Your task to perform on an android device: Open accessibility settings Image 0: 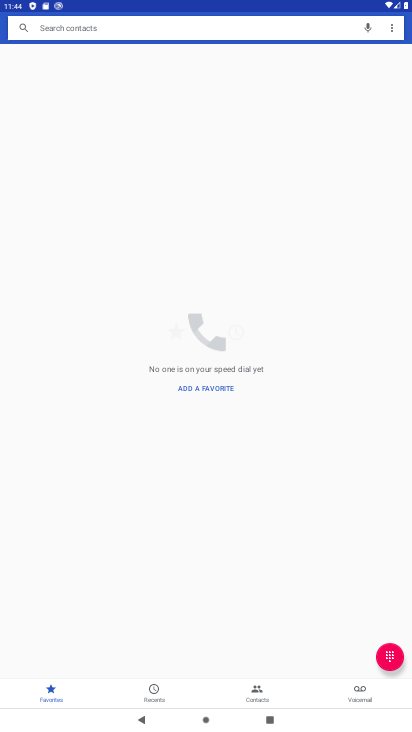
Step 0: press home button
Your task to perform on an android device: Open accessibility settings Image 1: 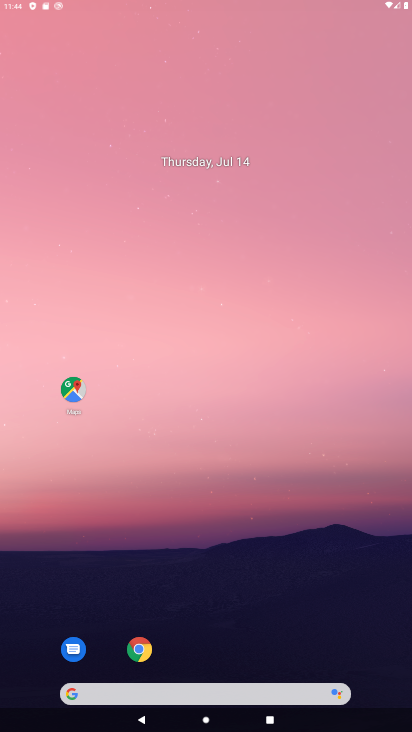
Step 1: drag from (238, 619) to (244, 227)
Your task to perform on an android device: Open accessibility settings Image 2: 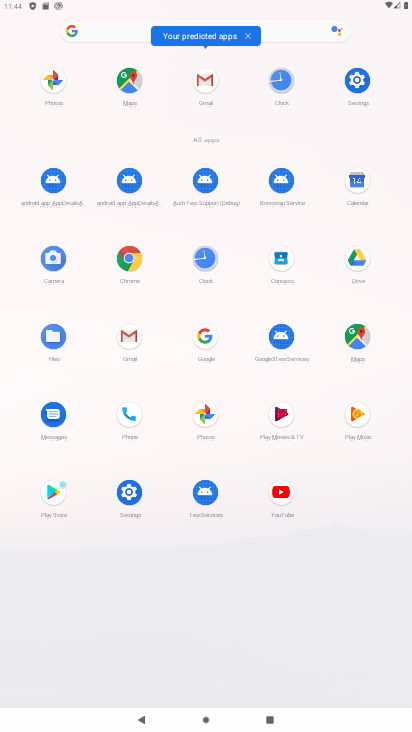
Step 2: click (122, 493)
Your task to perform on an android device: Open accessibility settings Image 3: 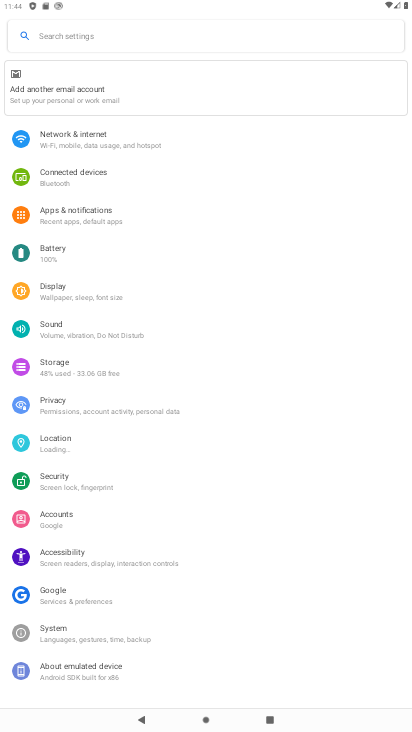
Step 3: click (104, 560)
Your task to perform on an android device: Open accessibility settings Image 4: 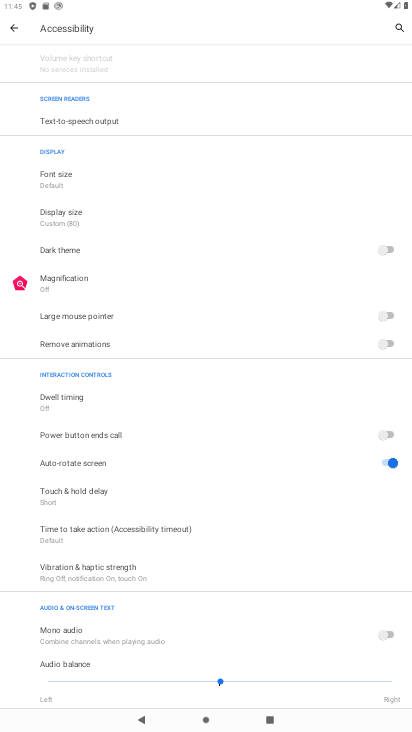
Step 4: task complete